Your task to perform on an android device: Turn off the flashlight Image 0: 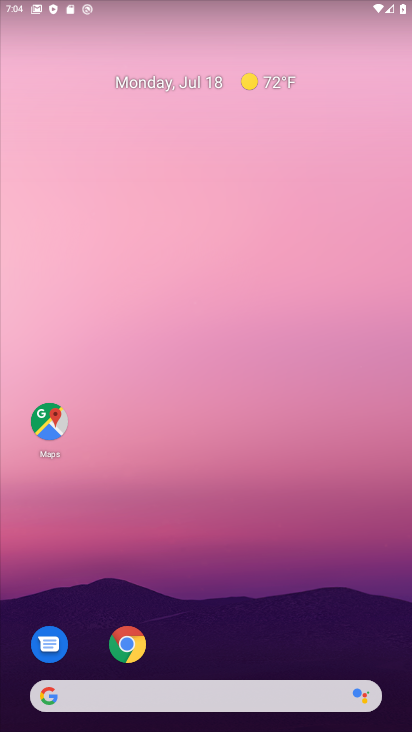
Step 0: drag from (360, 637) to (178, 61)
Your task to perform on an android device: Turn off the flashlight Image 1: 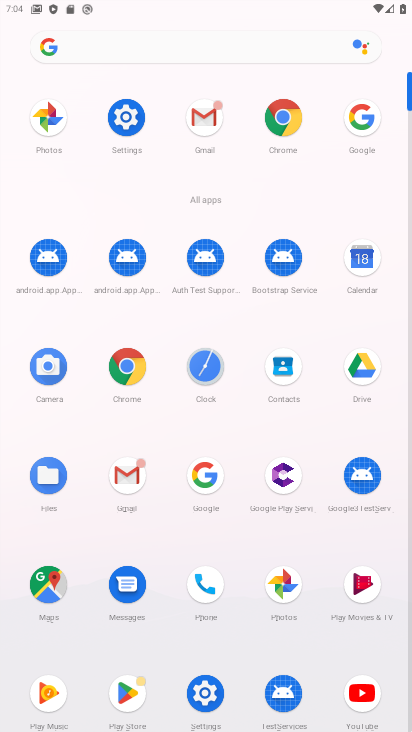
Step 1: click (213, 692)
Your task to perform on an android device: Turn off the flashlight Image 2: 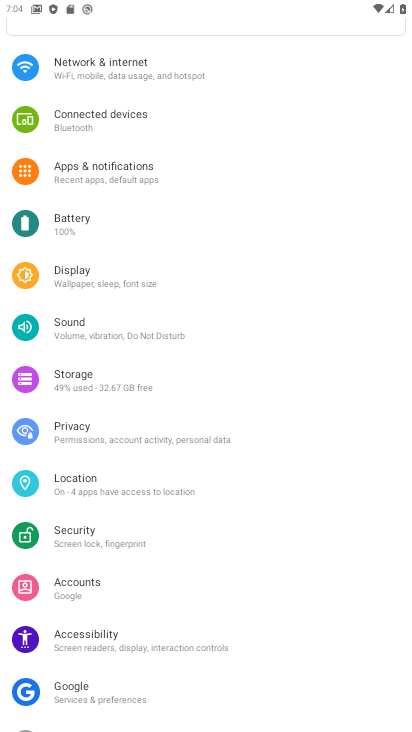
Step 2: task complete